Your task to perform on an android device: install app "Messenger Lite" Image 0: 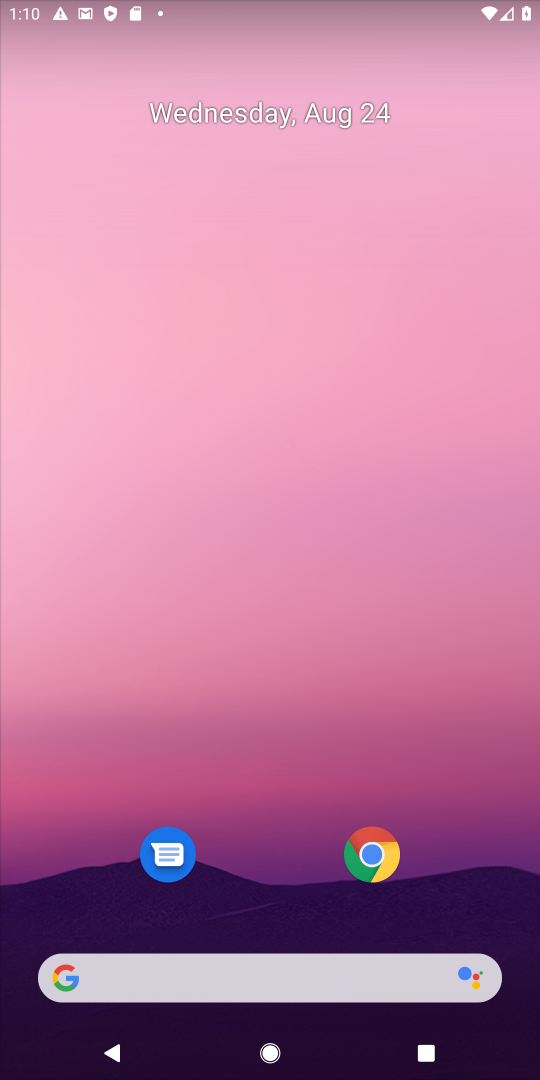
Step 0: press home button
Your task to perform on an android device: install app "Messenger Lite" Image 1: 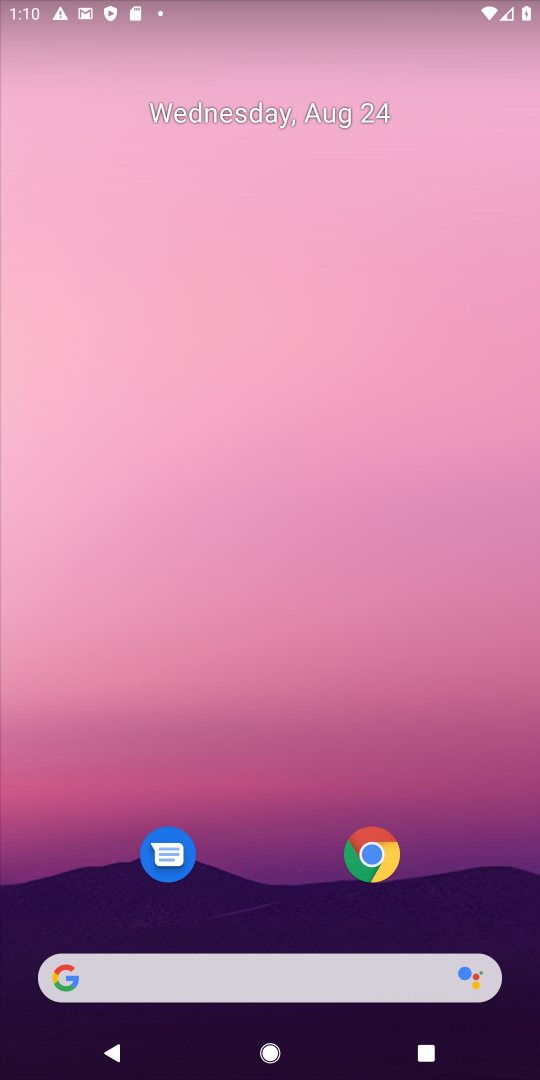
Step 1: drag from (474, 851) to (455, 155)
Your task to perform on an android device: install app "Messenger Lite" Image 2: 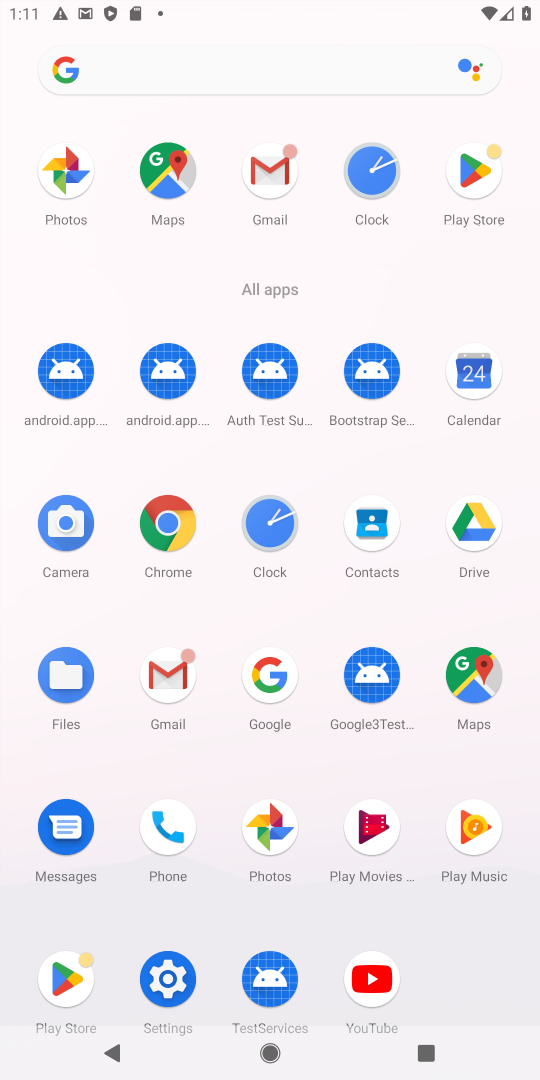
Step 2: click (476, 174)
Your task to perform on an android device: install app "Messenger Lite" Image 3: 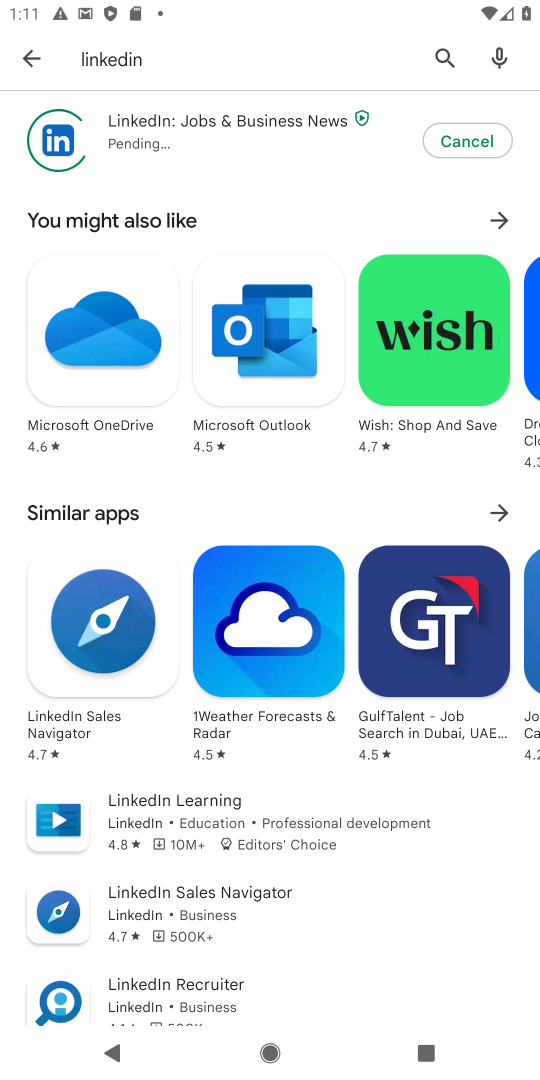
Step 3: press back button
Your task to perform on an android device: install app "Messenger Lite" Image 4: 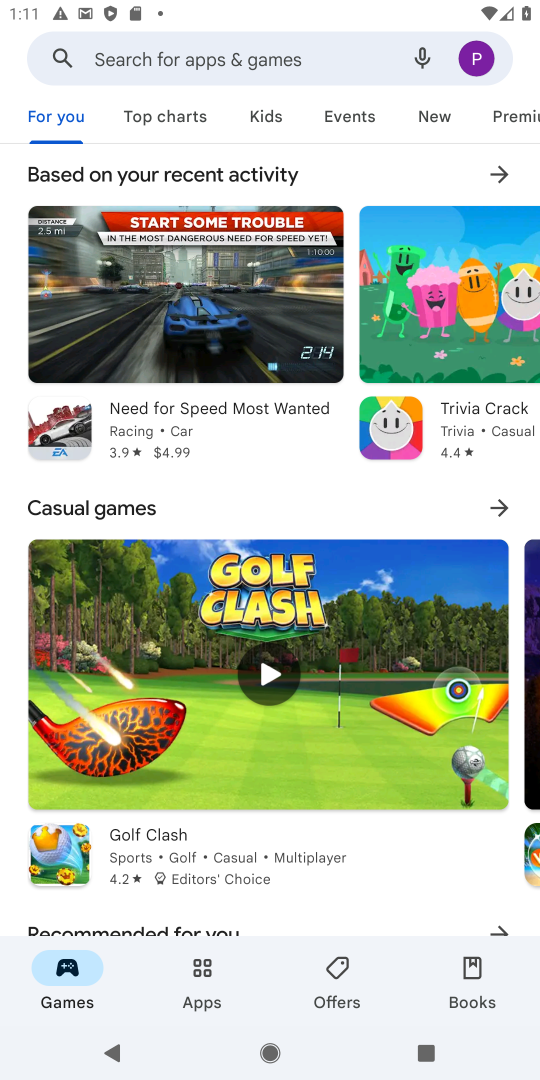
Step 4: click (294, 65)
Your task to perform on an android device: install app "Messenger Lite" Image 5: 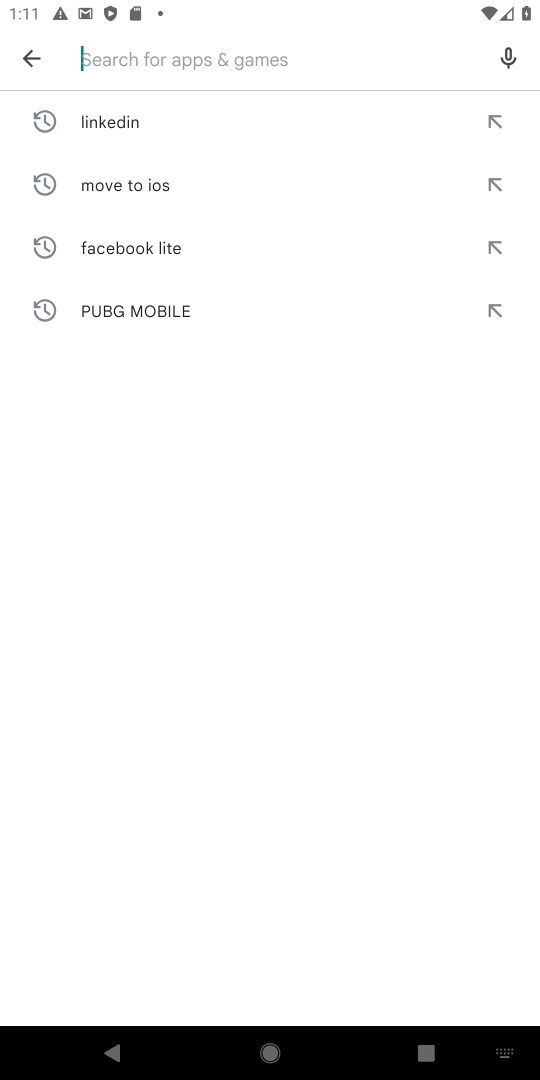
Step 5: press enter
Your task to perform on an android device: install app "Messenger Lite" Image 6: 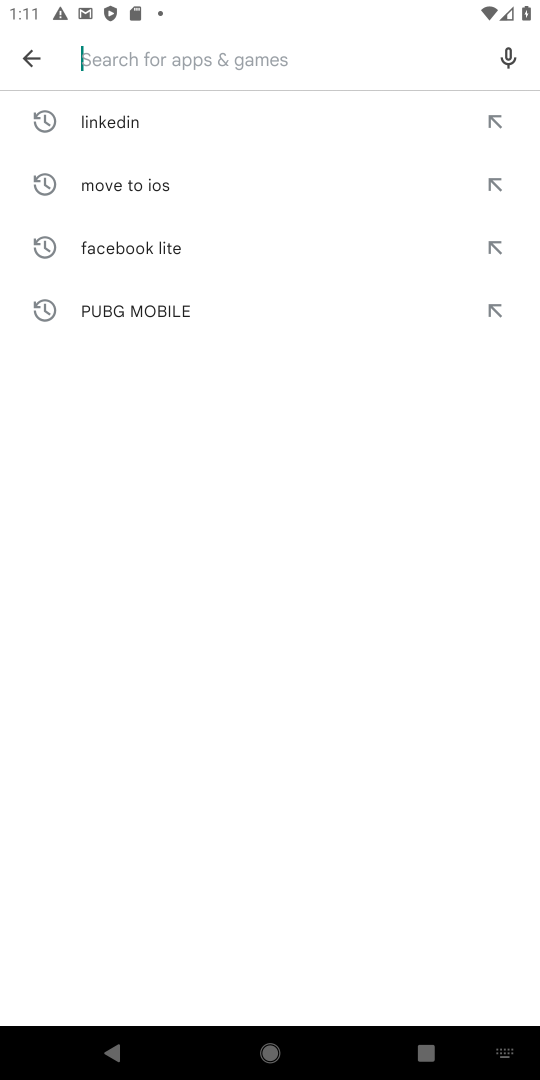
Step 6: type "Messenger Lite"
Your task to perform on an android device: install app "Messenger Lite" Image 7: 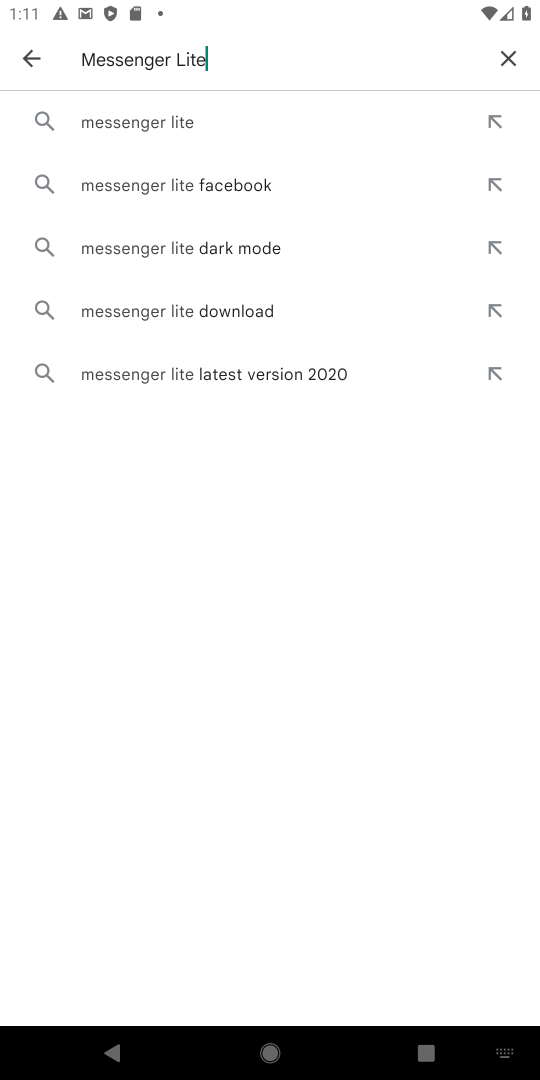
Step 7: click (217, 105)
Your task to perform on an android device: install app "Messenger Lite" Image 8: 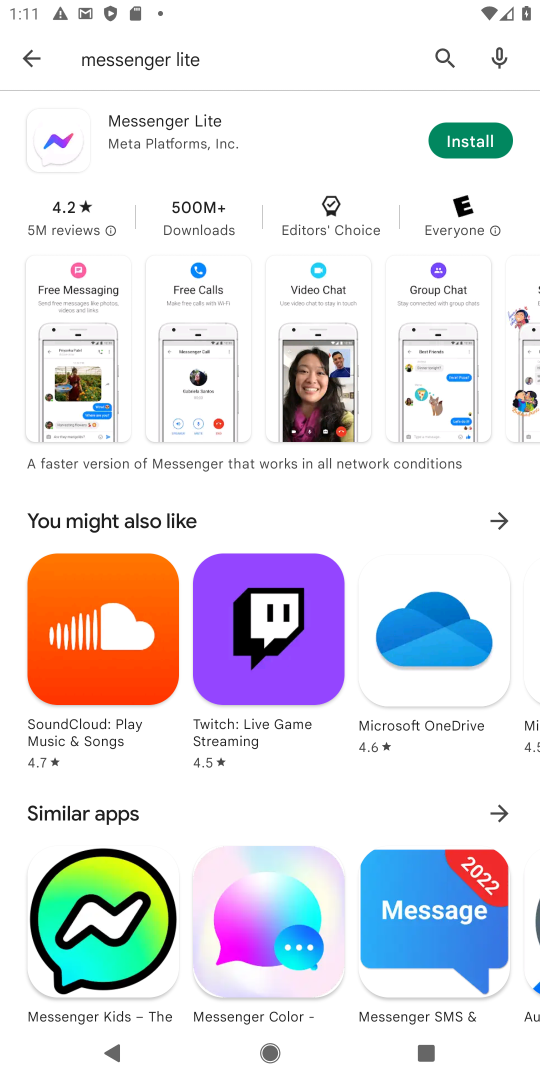
Step 8: click (463, 132)
Your task to perform on an android device: install app "Messenger Lite" Image 9: 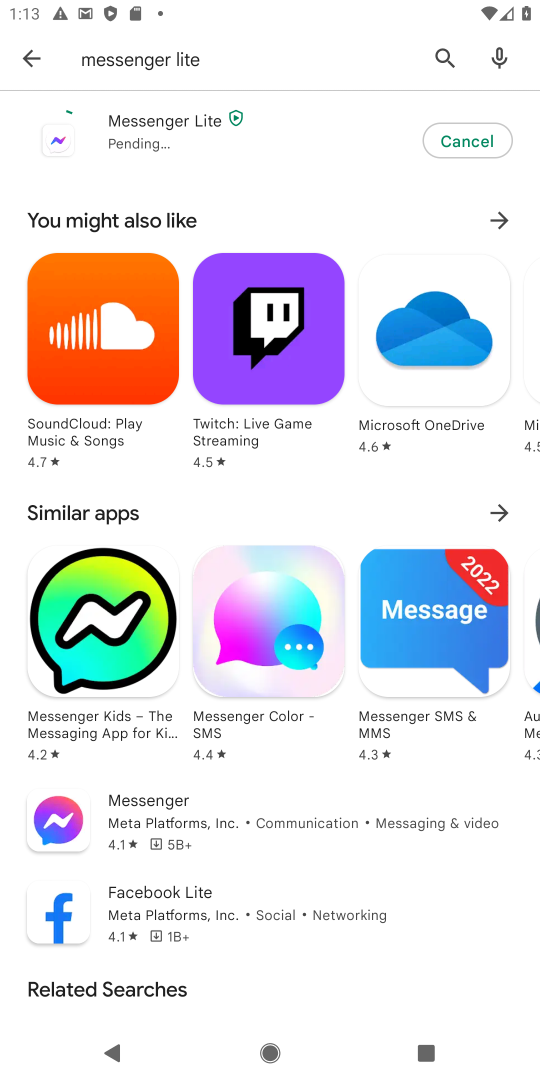
Step 9: task complete